Your task to perform on an android device: Open battery settings Image 0: 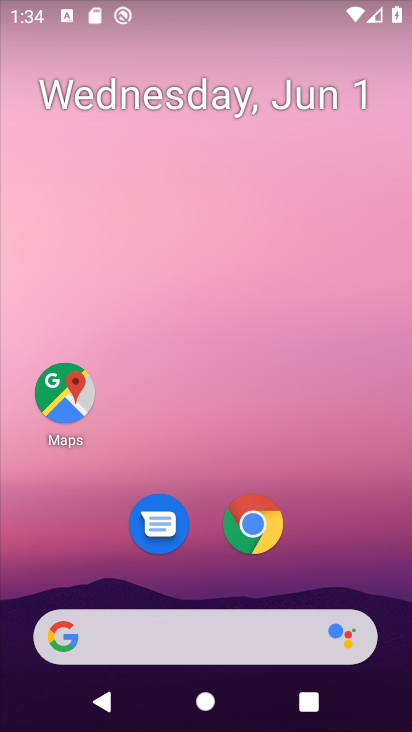
Step 0: drag from (324, 530) to (277, 52)
Your task to perform on an android device: Open battery settings Image 1: 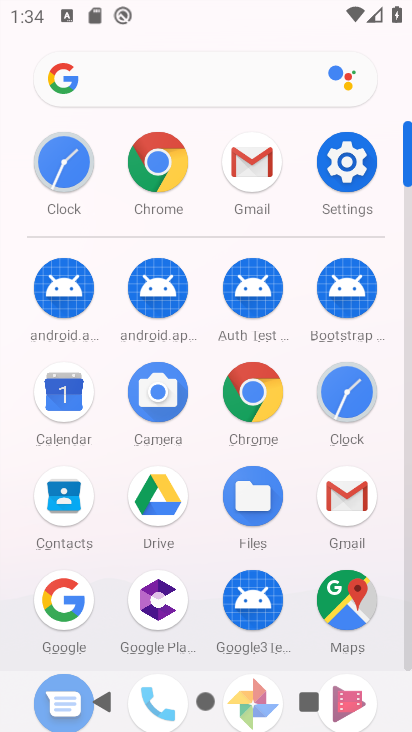
Step 1: click (338, 160)
Your task to perform on an android device: Open battery settings Image 2: 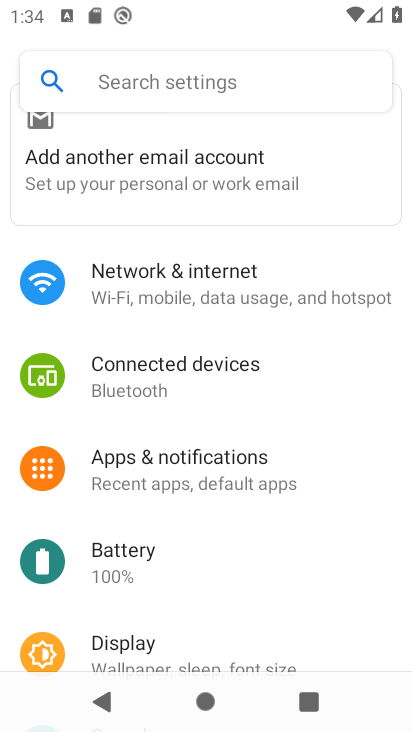
Step 2: click (180, 534)
Your task to perform on an android device: Open battery settings Image 3: 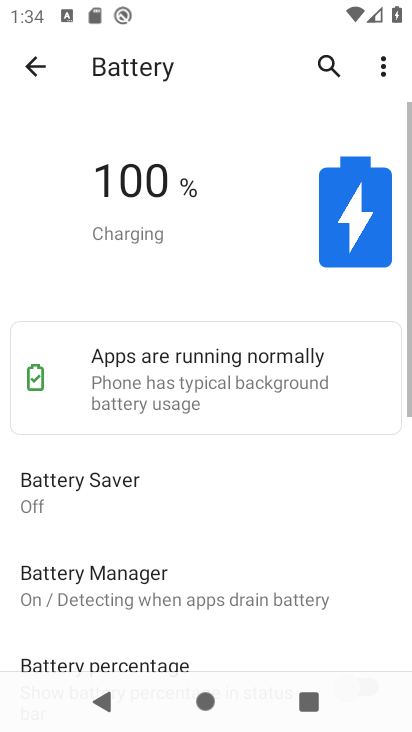
Step 3: task complete